Your task to perform on an android device: find snoozed emails in the gmail app Image 0: 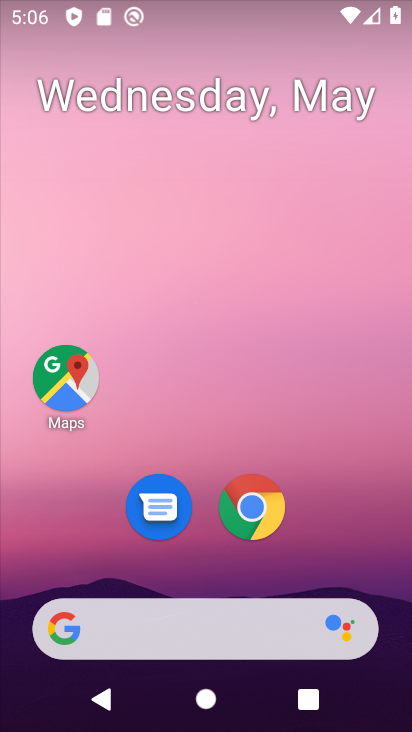
Step 0: drag from (324, 555) to (195, 25)
Your task to perform on an android device: find snoozed emails in the gmail app Image 1: 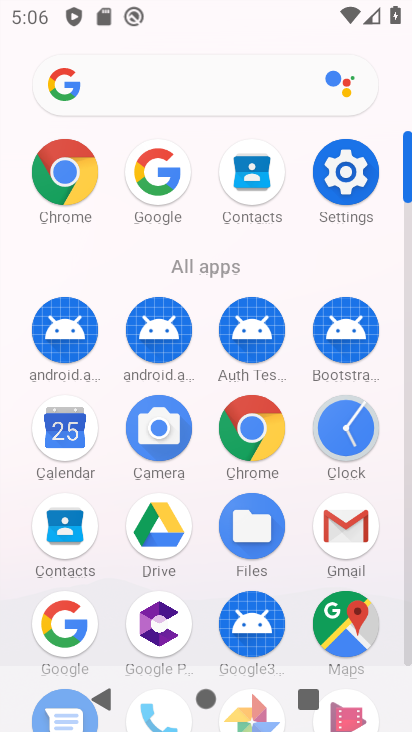
Step 1: drag from (302, 487) to (320, 294)
Your task to perform on an android device: find snoozed emails in the gmail app Image 2: 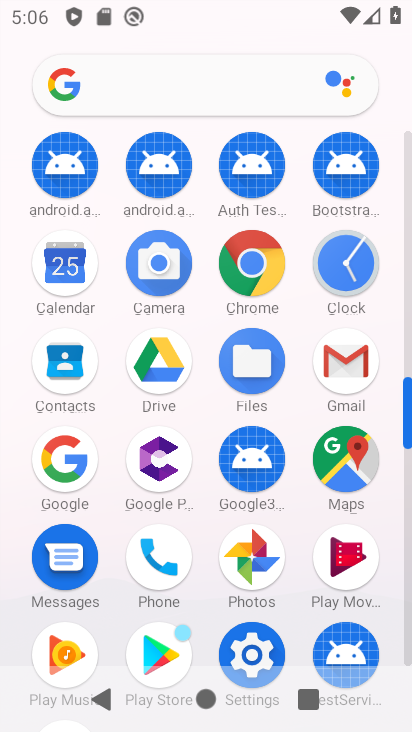
Step 2: click (346, 361)
Your task to perform on an android device: find snoozed emails in the gmail app Image 3: 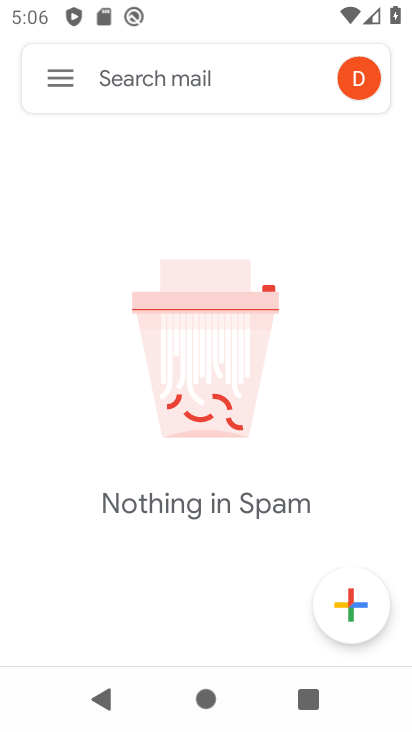
Step 3: click (63, 82)
Your task to perform on an android device: find snoozed emails in the gmail app Image 4: 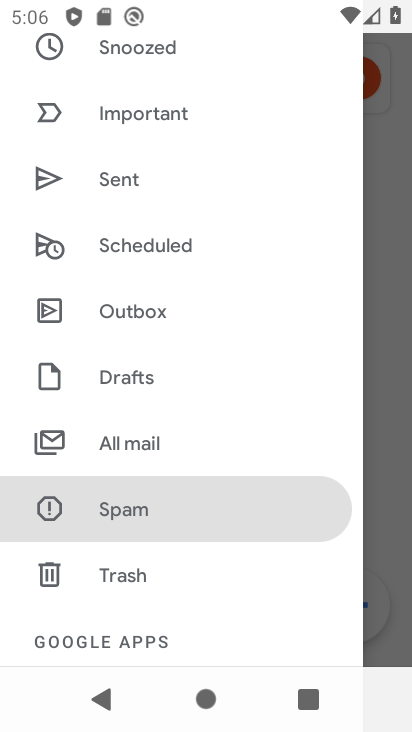
Step 4: drag from (123, 164) to (142, 232)
Your task to perform on an android device: find snoozed emails in the gmail app Image 5: 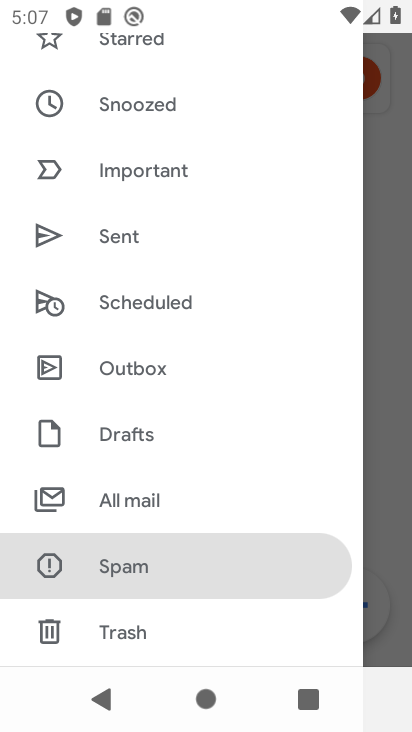
Step 5: click (134, 109)
Your task to perform on an android device: find snoozed emails in the gmail app Image 6: 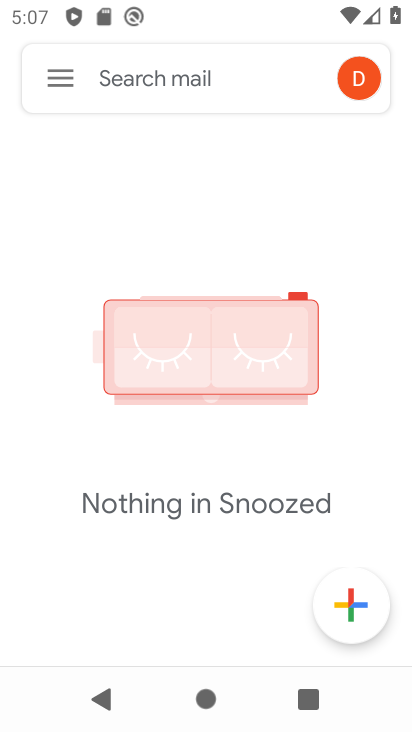
Step 6: click (63, 88)
Your task to perform on an android device: find snoozed emails in the gmail app Image 7: 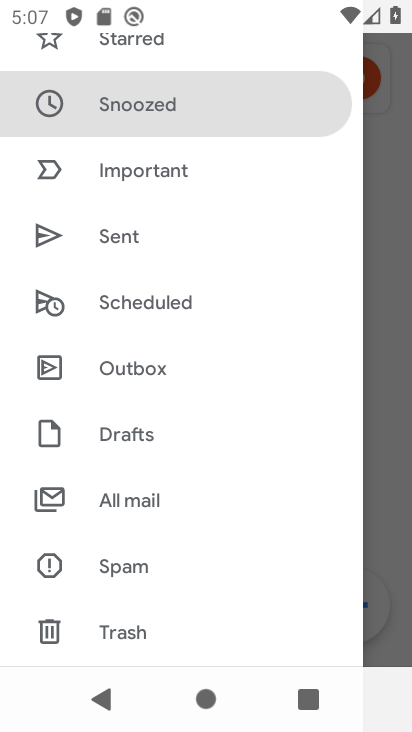
Step 7: drag from (136, 407) to (149, 286)
Your task to perform on an android device: find snoozed emails in the gmail app Image 8: 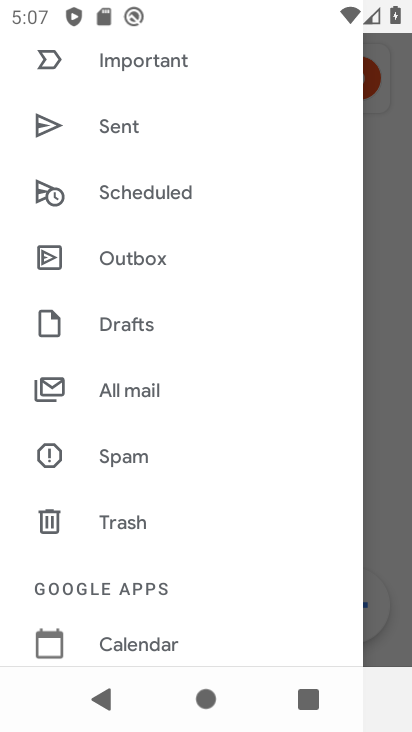
Step 8: drag from (126, 432) to (159, 352)
Your task to perform on an android device: find snoozed emails in the gmail app Image 9: 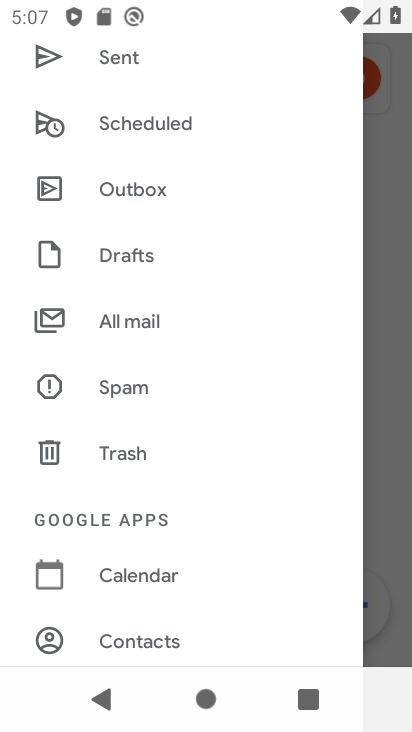
Step 9: click (149, 322)
Your task to perform on an android device: find snoozed emails in the gmail app Image 10: 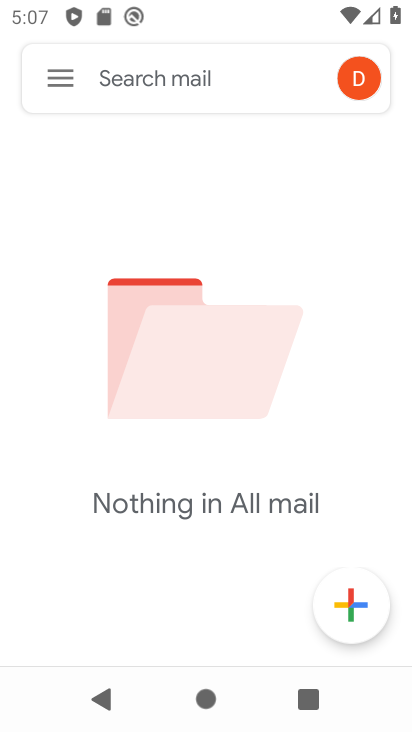
Step 10: task complete